Your task to perform on an android device: See recent photos Image 0: 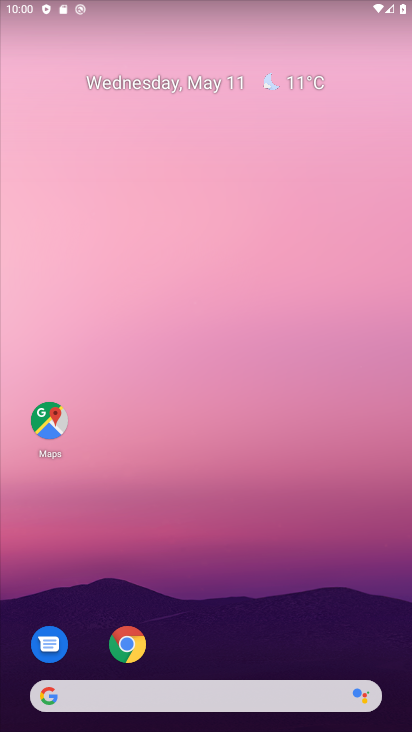
Step 0: drag from (302, 657) to (259, 7)
Your task to perform on an android device: See recent photos Image 1: 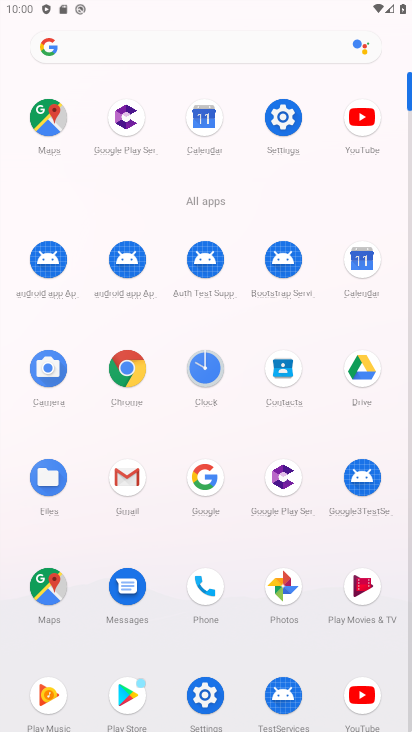
Step 1: click (283, 591)
Your task to perform on an android device: See recent photos Image 2: 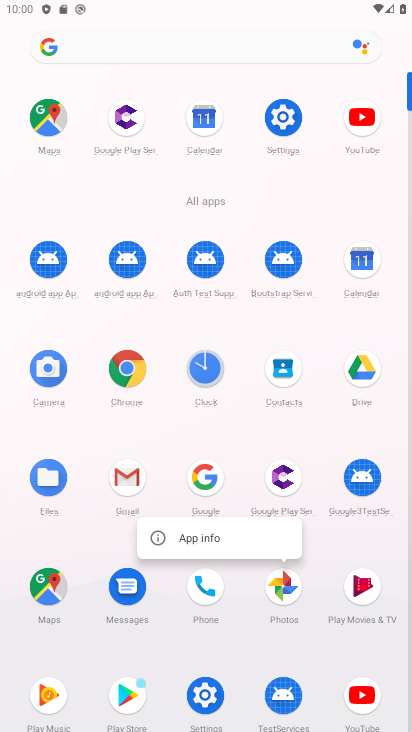
Step 2: click (289, 596)
Your task to perform on an android device: See recent photos Image 3: 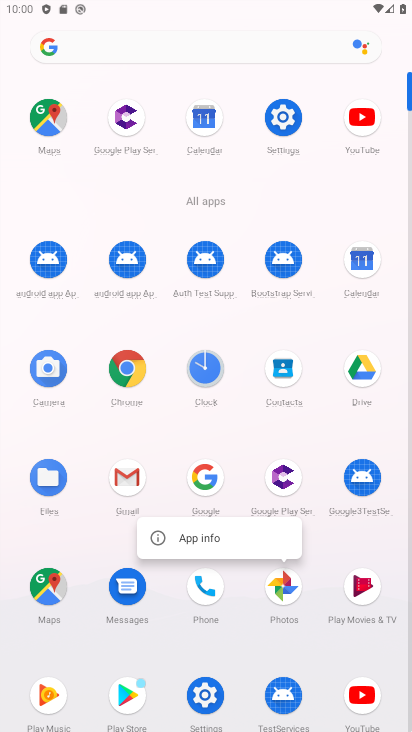
Step 3: click (284, 592)
Your task to perform on an android device: See recent photos Image 4: 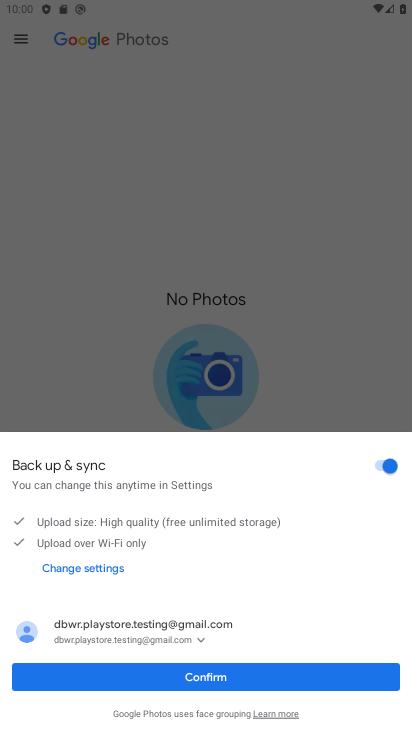
Step 4: click (206, 684)
Your task to perform on an android device: See recent photos Image 5: 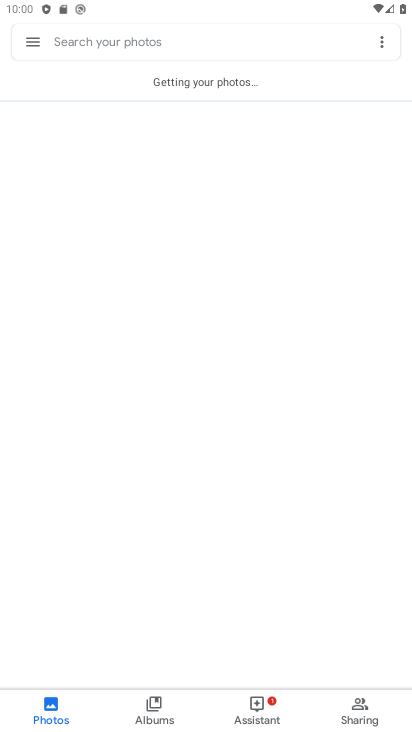
Step 5: task complete